Your task to perform on an android device: Go to privacy settings Image 0: 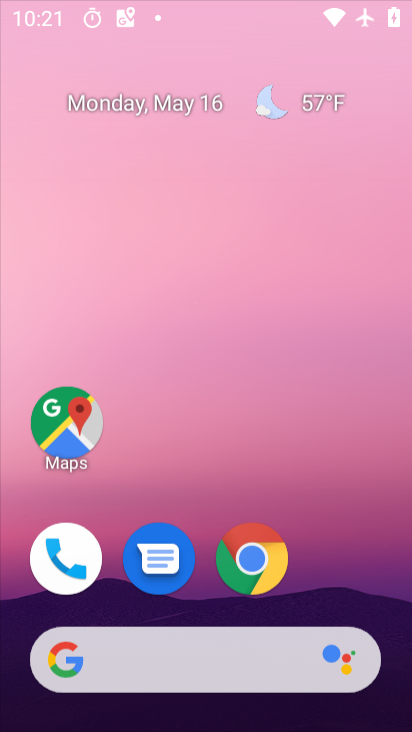
Step 0: click (328, 127)
Your task to perform on an android device: Go to privacy settings Image 1: 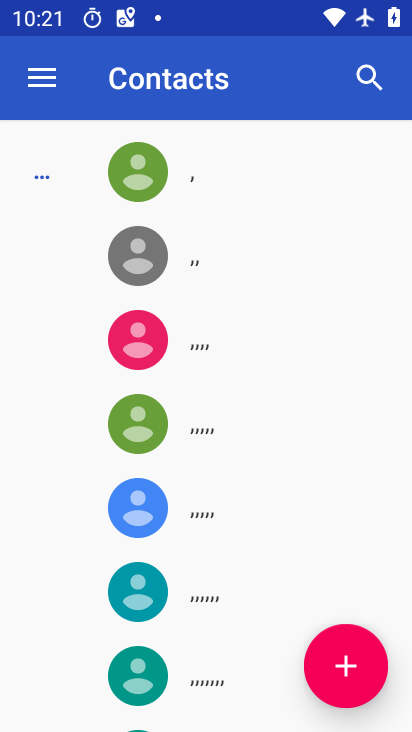
Step 1: press home button
Your task to perform on an android device: Go to privacy settings Image 2: 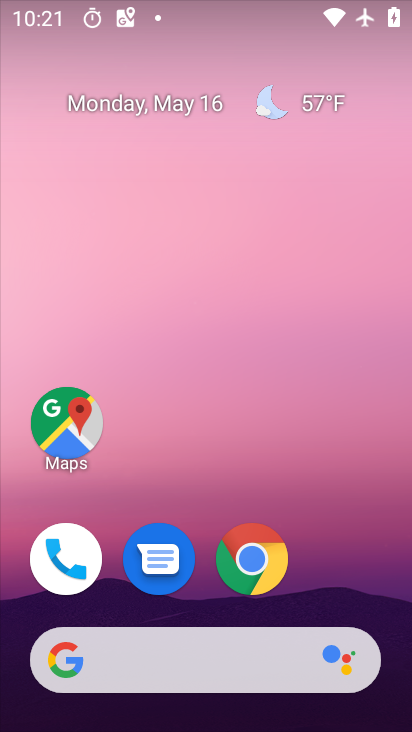
Step 2: drag from (312, 520) to (300, 192)
Your task to perform on an android device: Go to privacy settings Image 3: 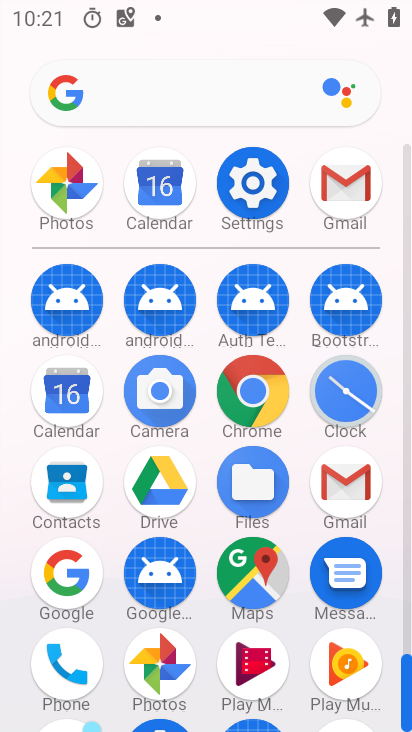
Step 3: click (250, 190)
Your task to perform on an android device: Go to privacy settings Image 4: 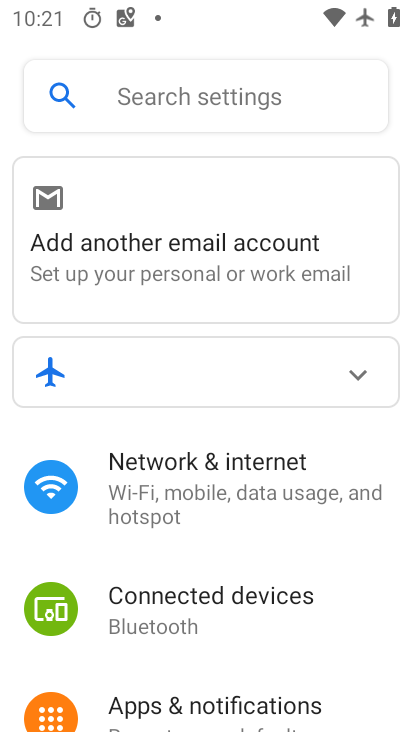
Step 4: drag from (122, 556) to (223, 129)
Your task to perform on an android device: Go to privacy settings Image 5: 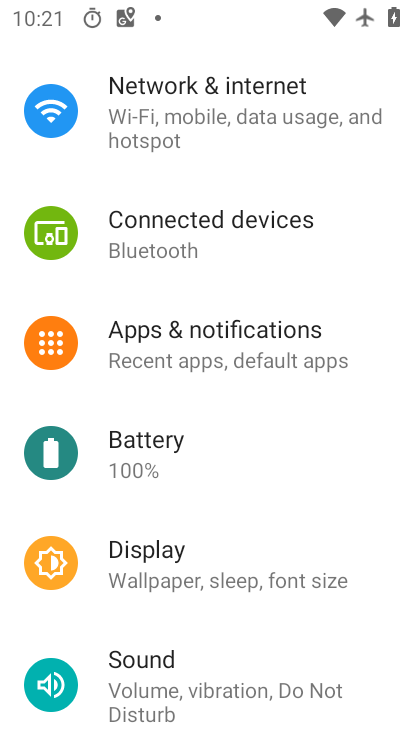
Step 5: drag from (175, 477) to (324, 126)
Your task to perform on an android device: Go to privacy settings Image 6: 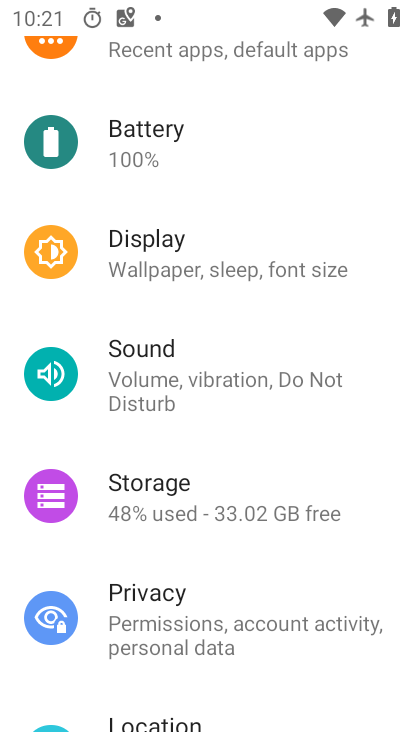
Step 6: click (143, 600)
Your task to perform on an android device: Go to privacy settings Image 7: 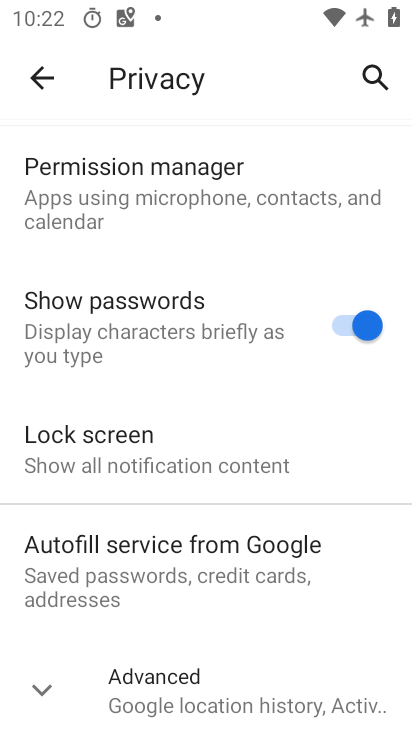
Step 7: task complete